Your task to perform on an android device: manage bookmarks in the chrome app Image 0: 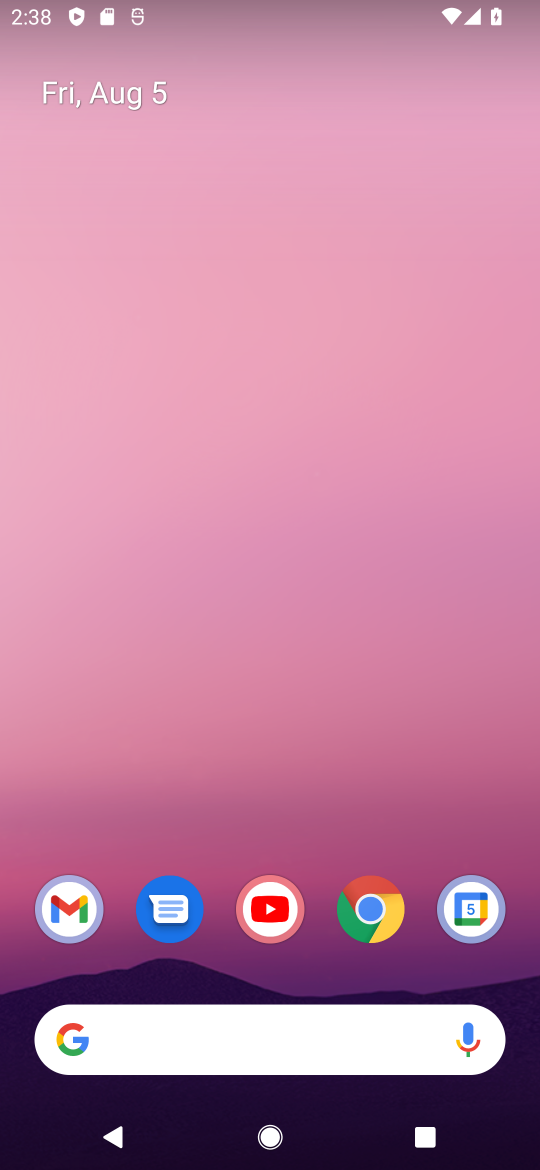
Step 0: click (386, 881)
Your task to perform on an android device: manage bookmarks in the chrome app Image 1: 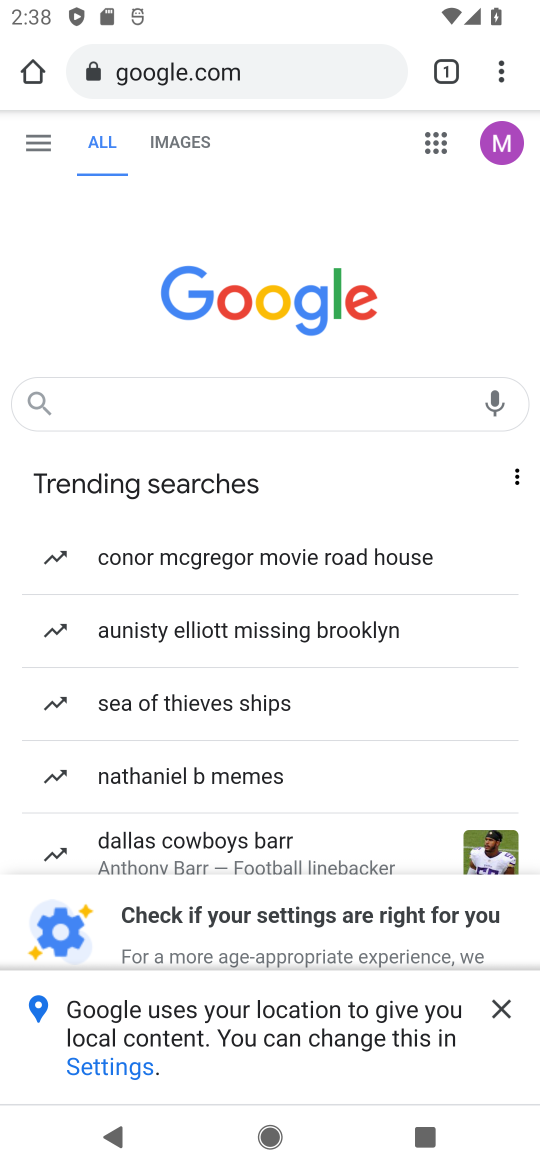
Step 1: click (494, 62)
Your task to perform on an android device: manage bookmarks in the chrome app Image 2: 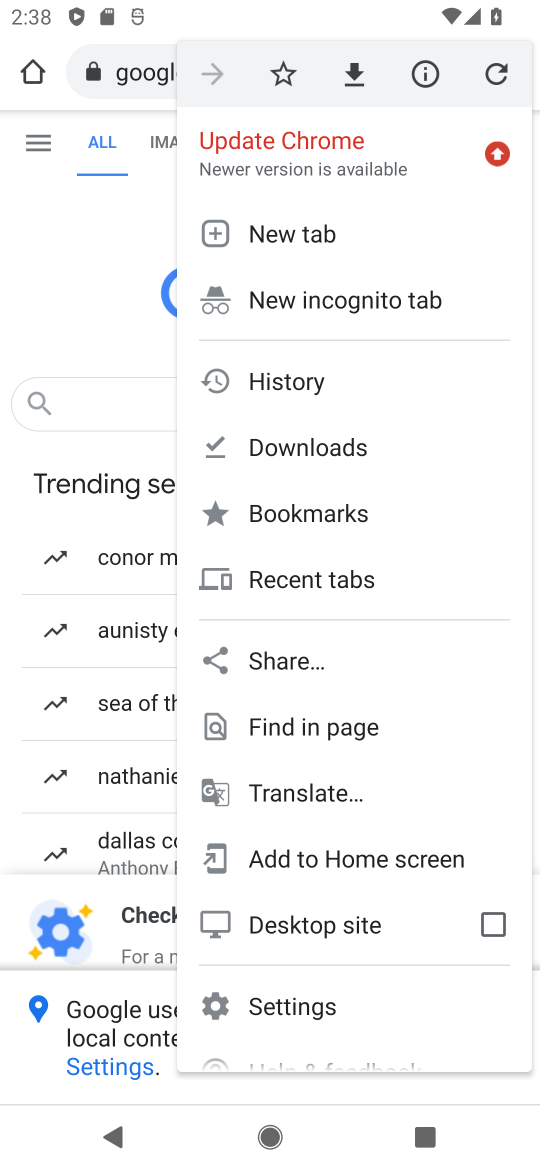
Step 2: click (308, 999)
Your task to perform on an android device: manage bookmarks in the chrome app Image 3: 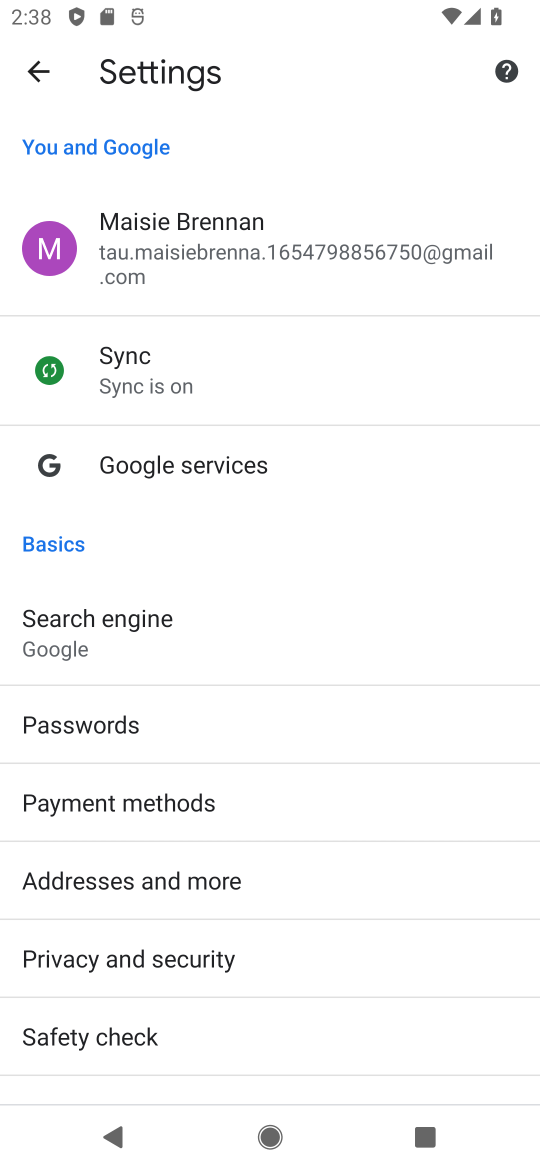
Step 3: task complete